Your task to perform on an android device: Search for Mexican restaurants on Maps Image 0: 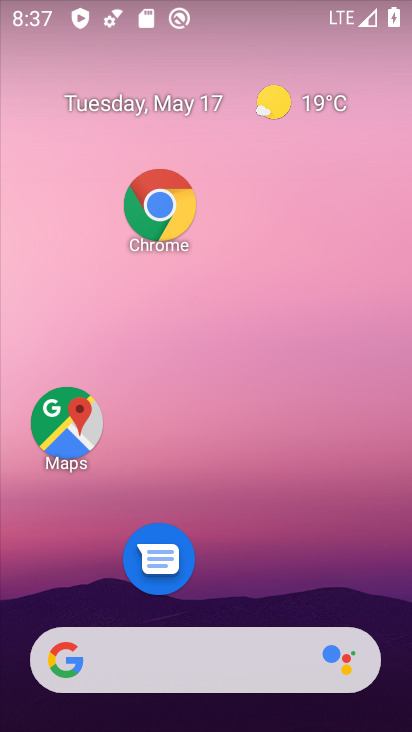
Step 0: drag from (227, 579) to (241, 163)
Your task to perform on an android device: Search for Mexican restaurants on Maps Image 1: 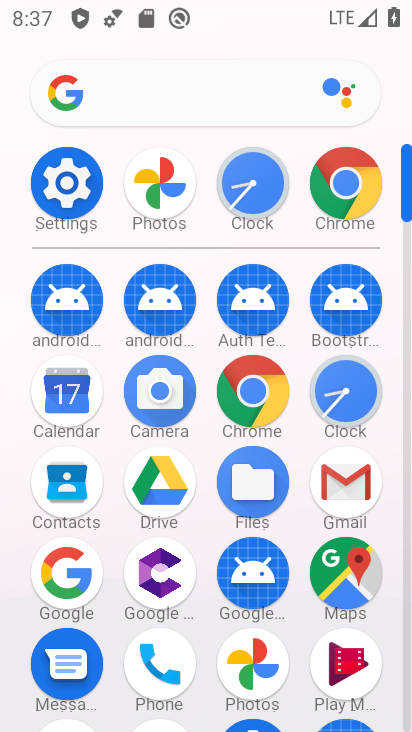
Step 1: click (345, 545)
Your task to perform on an android device: Search for Mexican restaurants on Maps Image 2: 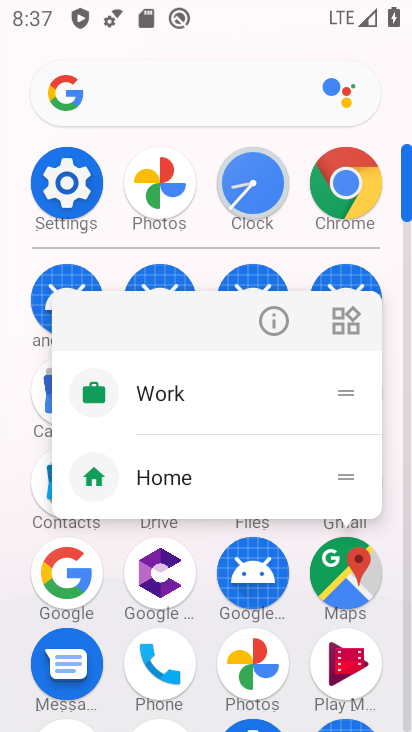
Step 2: click (259, 320)
Your task to perform on an android device: Search for Mexican restaurants on Maps Image 3: 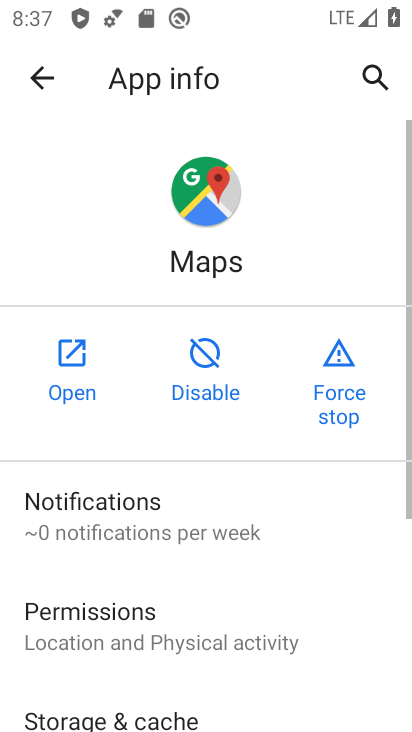
Step 3: click (81, 363)
Your task to perform on an android device: Search for Mexican restaurants on Maps Image 4: 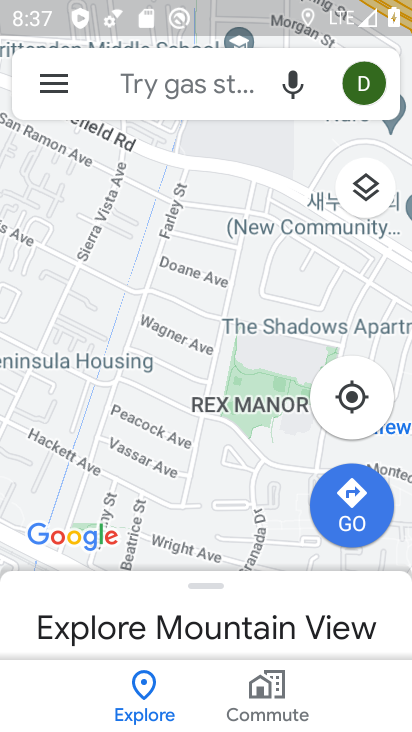
Step 4: click (42, 94)
Your task to perform on an android device: Search for Mexican restaurants on Maps Image 5: 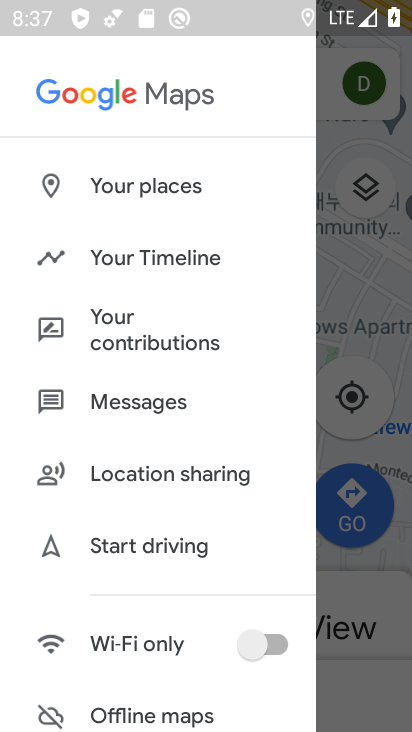
Step 5: drag from (162, 560) to (182, 73)
Your task to perform on an android device: Search for Mexican restaurants on Maps Image 6: 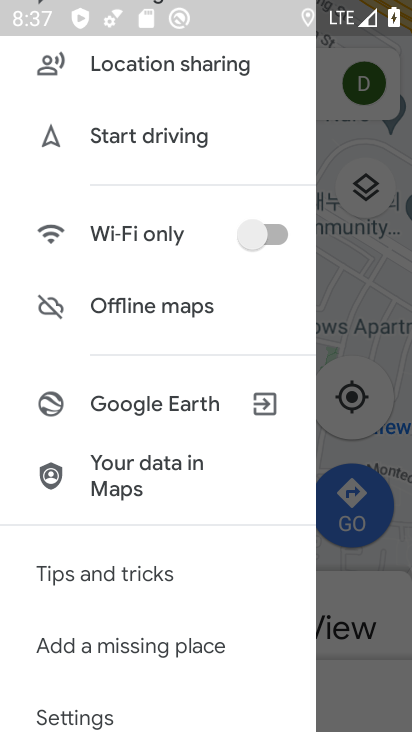
Step 6: drag from (130, 585) to (153, 30)
Your task to perform on an android device: Search for Mexican restaurants on Maps Image 7: 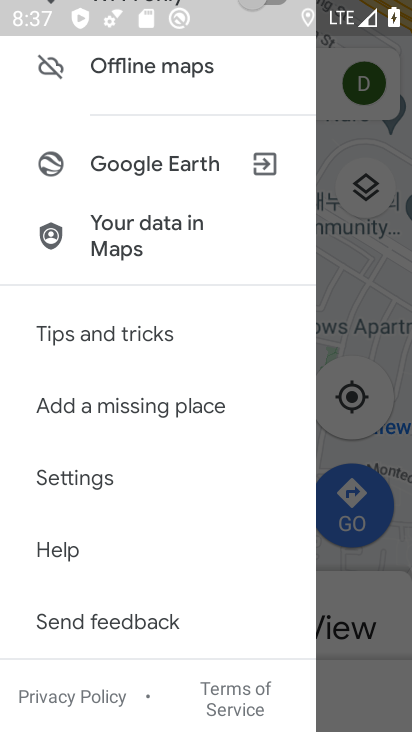
Step 7: click (98, 479)
Your task to perform on an android device: Search for Mexican restaurants on Maps Image 8: 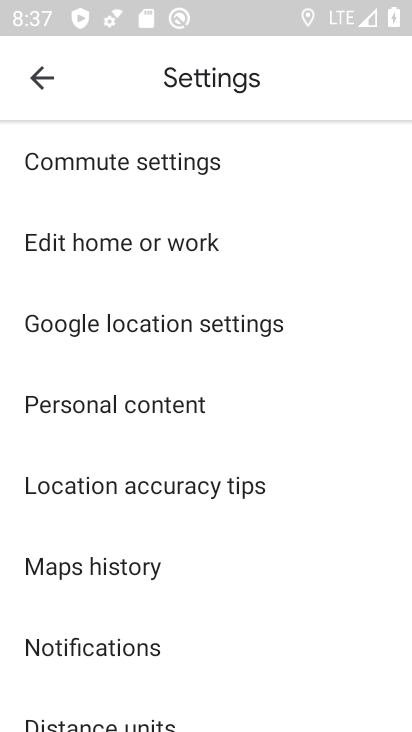
Step 8: click (42, 78)
Your task to perform on an android device: Search for Mexican restaurants on Maps Image 9: 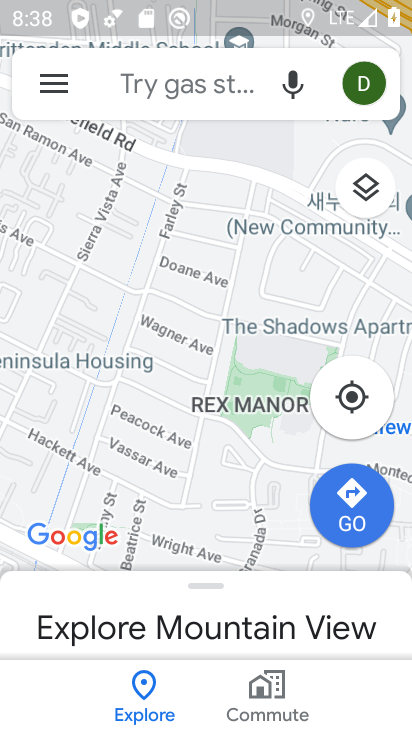
Step 9: click (192, 87)
Your task to perform on an android device: Search for Mexican restaurants on Maps Image 10: 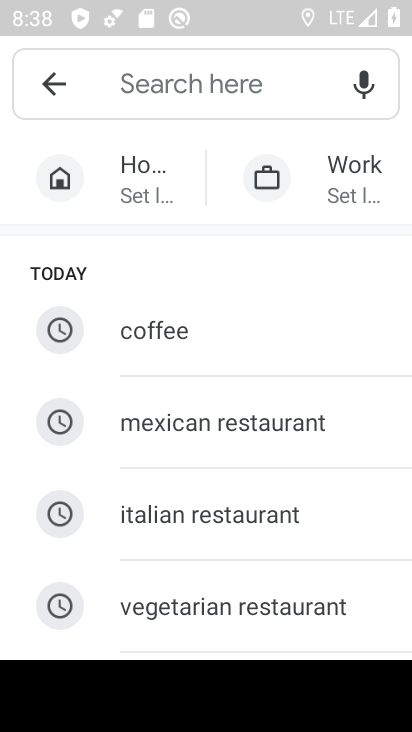
Step 10: click (170, 412)
Your task to perform on an android device: Search for Mexican restaurants on Maps Image 11: 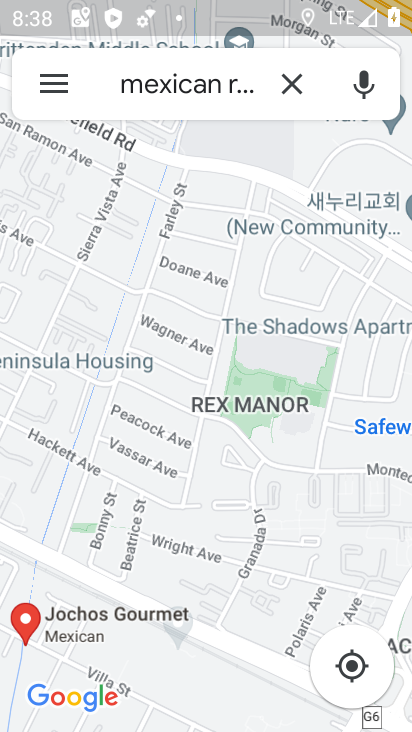
Step 11: click (178, 398)
Your task to perform on an android device: Search for Mexican restaurants on Maps Image 12: 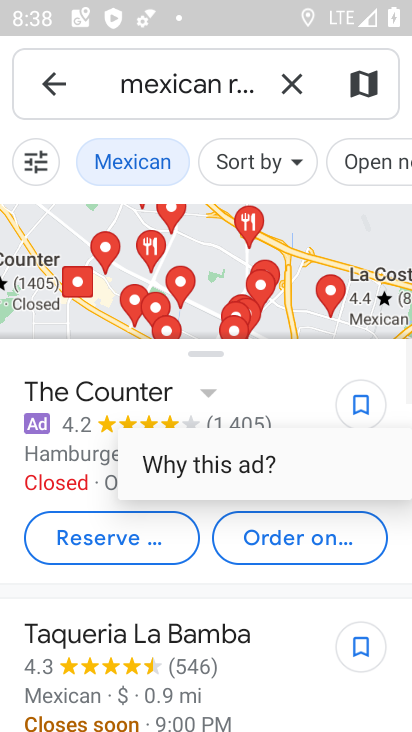
Step 12: task complete